Your task to perform on an android device: Play the last video I watched on Youtube Image 0: 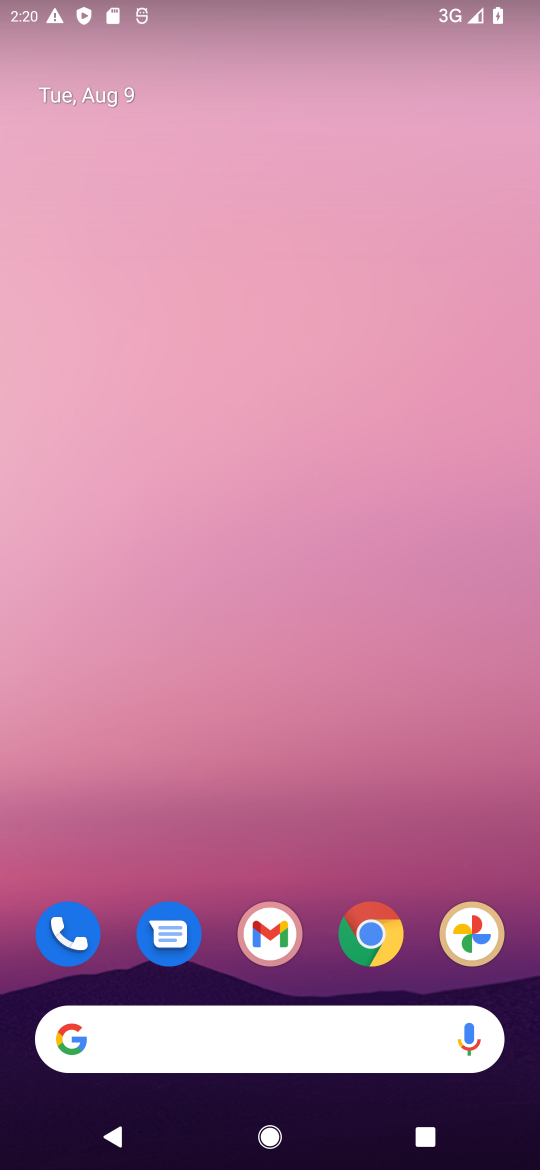
Step 0: drag from (317, 983) to (447, 16)
Your task to perform on an android device: Play the last video I watched on Youtube Image 1: 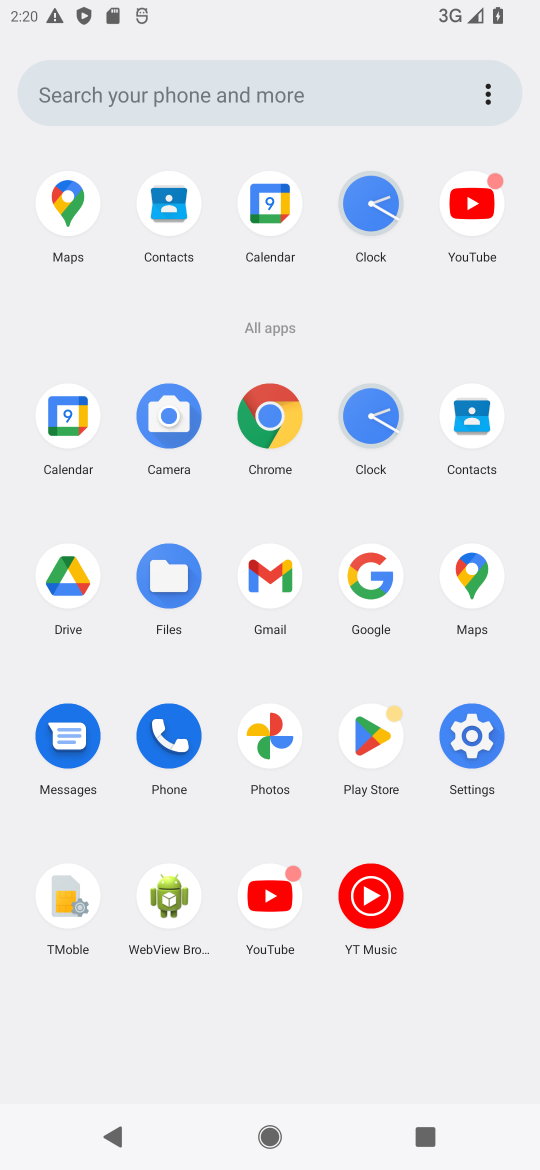
Step 1: click (275, 900)
Your task to perform on an android device: Play the last video I watched on Youtube Image 2: 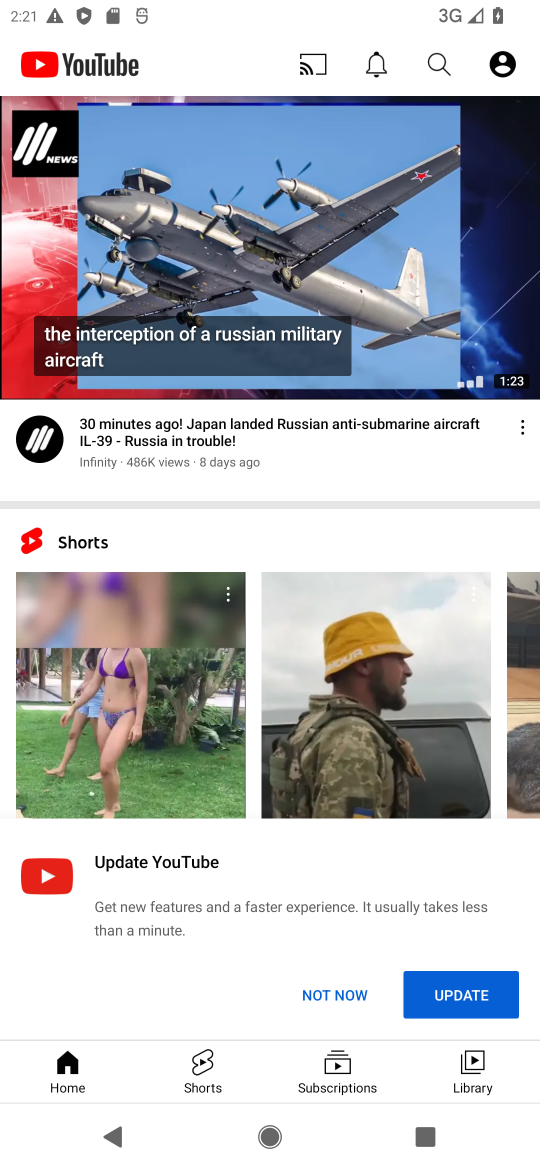
Step 2: task complete